Your task to perform on an android device: turn off improve location accuracy Image 0: 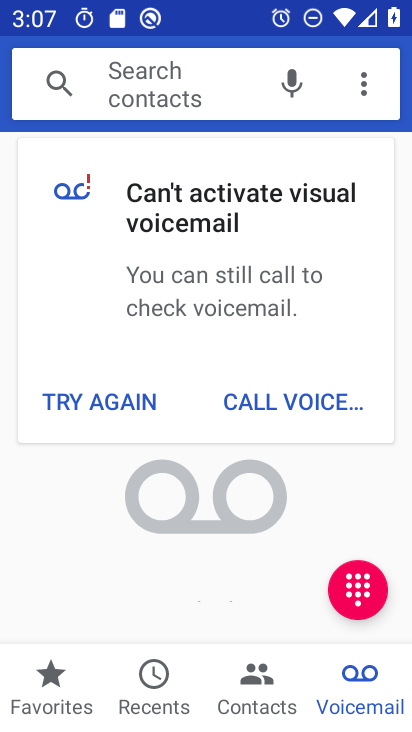
Step 0: press home button
Your task to perform on an android device: turn off improve location accuracy Image 1: 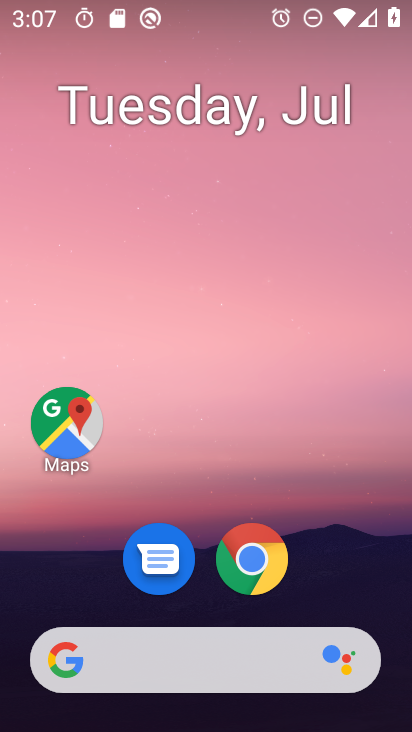
Step 1: drag from (373, 553) to (393, 145)
Your task to perform on an android device: turn off improve location accuracy Image 2: 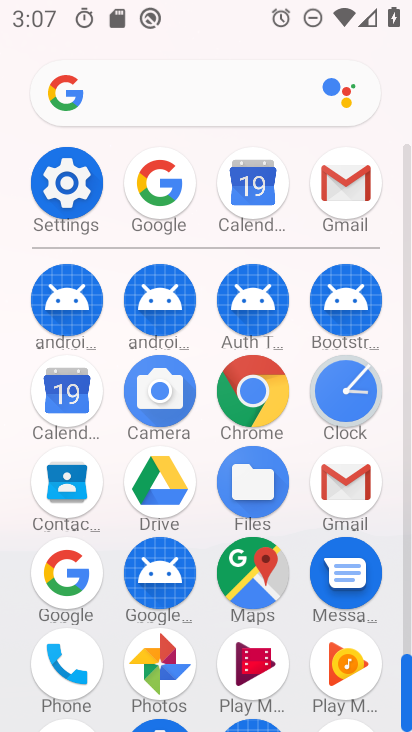
Step 2: click (80, 190)
Your task to perform on an android device: turn off improve location accuracy Image 3: 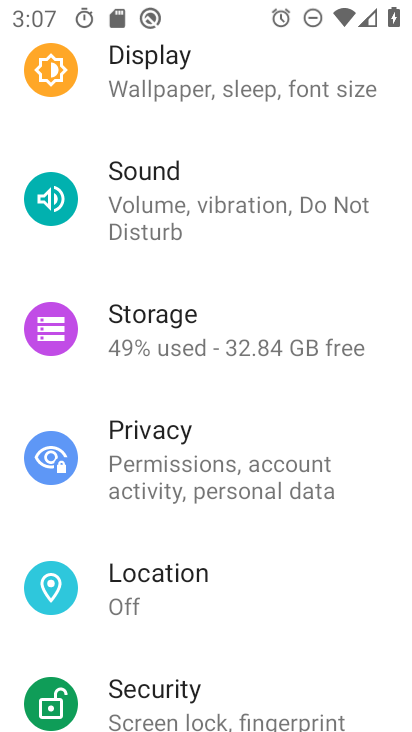
Step 3: drag from (356, 411) to (379, 520)
Your task to perform on an android device: turn off improve location accuracy Image 4: 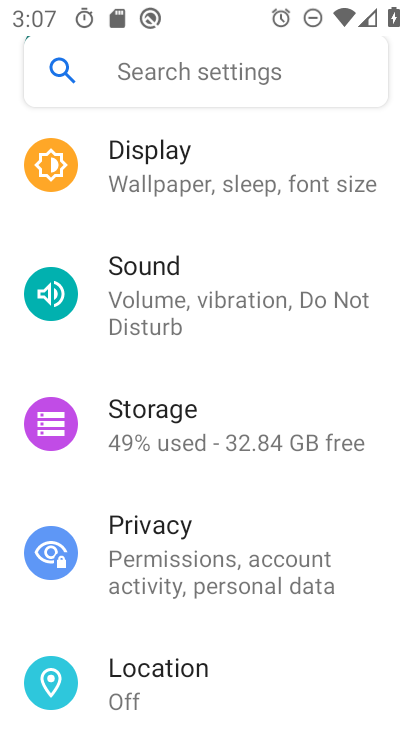
Step 4: drag from (373, 375) to (388, 470)
Your task to perform on an android device: turn off improve location accuracy Image 5: 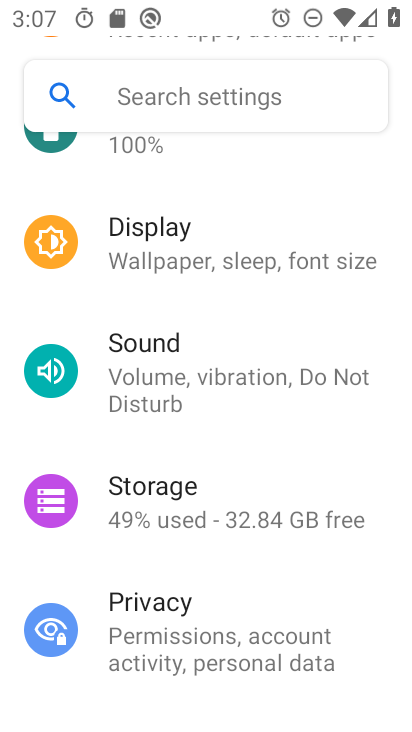
Step 5: drag from (370, 291) to (371, 392)
Your task to perform on an android device: turn off improve location accuracy Image 6: 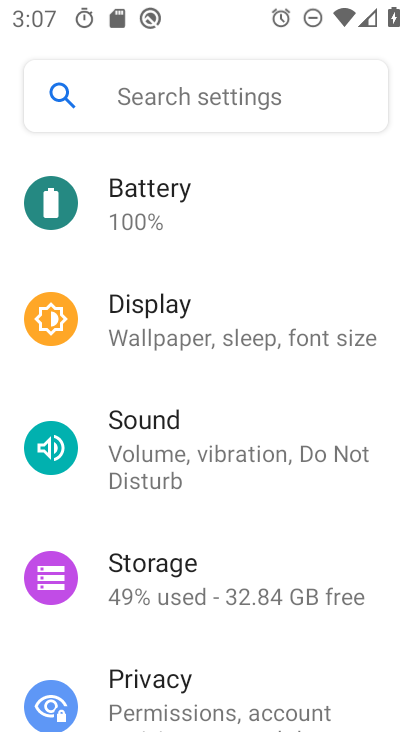
Step 6: drag from (368, 276) to (372, 364)
Your task to perform on an android device: turn off improve location accuracy Image 7: 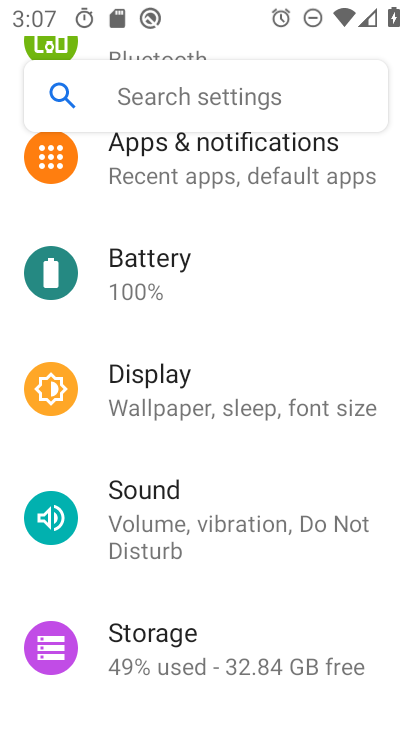
Step 7: drag from (365, 225) to (375, 344)
Your task to perform on an android device: turn off improve location accuracy Image 8: 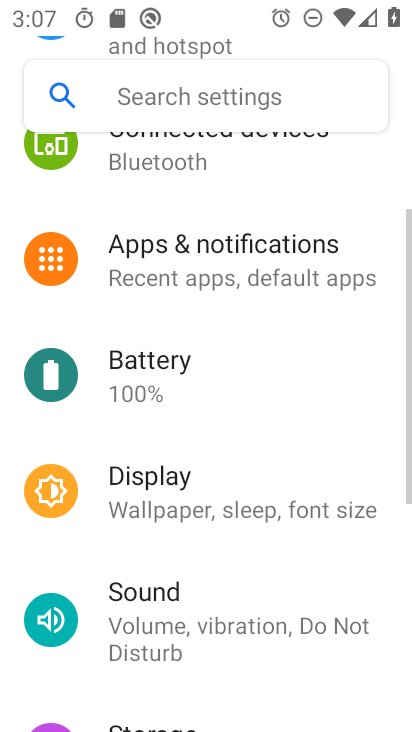
Step 8: drag from (362, 260) to (363, 426)
Your task to perform on an android device: turn off improve location accuracy Image 9: 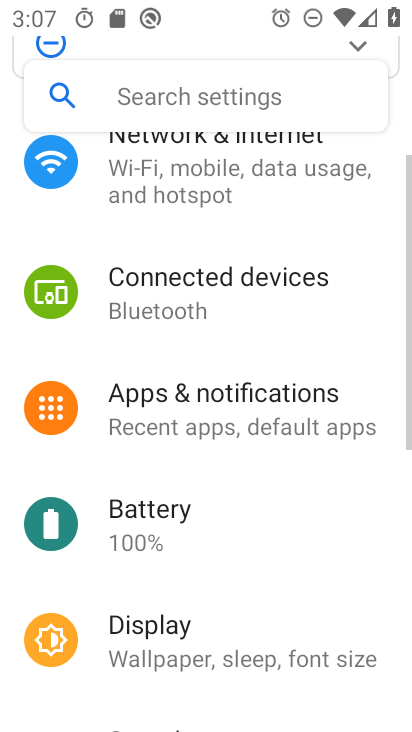
Step 9: drag from (351, 485) to (342, 358)
Your task to perform on an android device: turn off improve location accuracy Image 10: 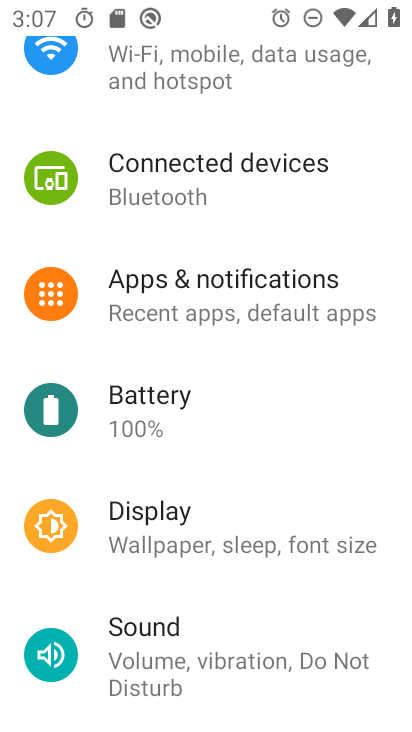
Step 10: drag from (338, 465) to (348, 313)
Your task to perform on an android device: turn off improve location accuracy Image 11: 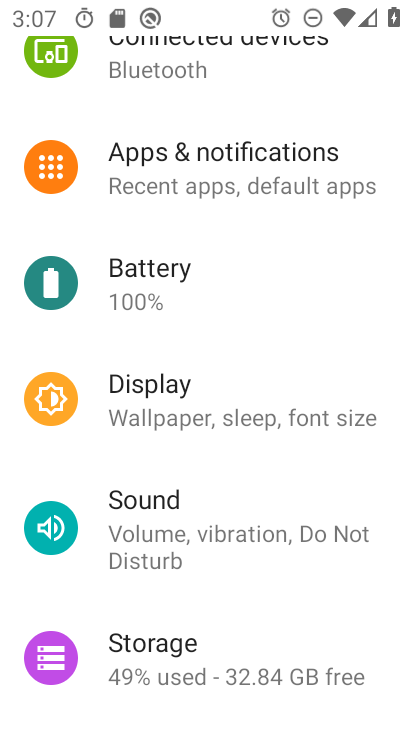
Step 11: drag from (341, 478) to (342, 359)
Your task to perform on an android device: turn off improve location accuracy Image 12: 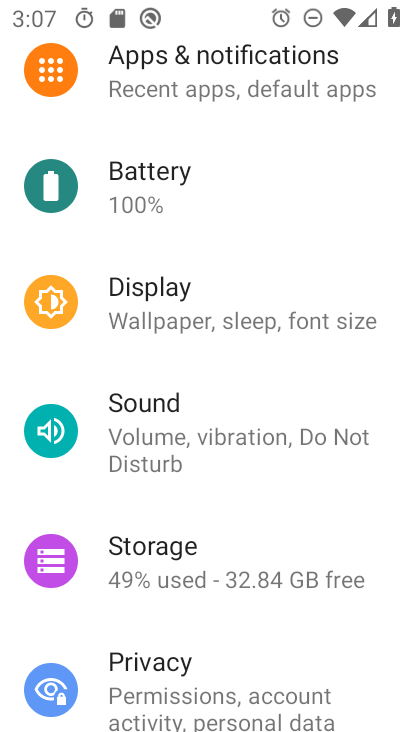
Step 12: drag from (343, 529) to (348, 409)
Your task to perform on an android device: turn off improve location accuracy Image 13: 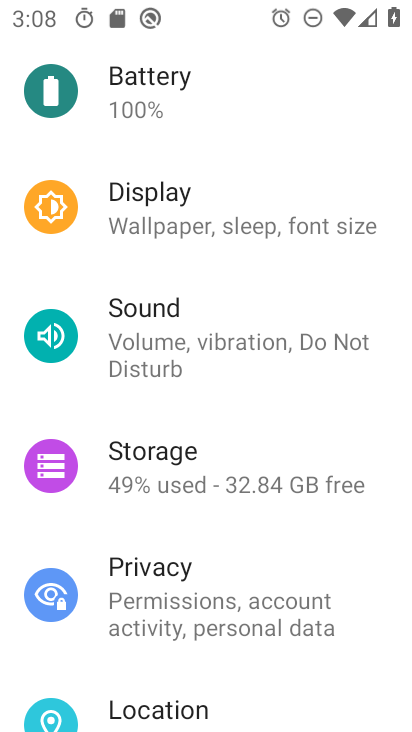
Step 13: drag from (351, 542) to (347, 397)
Your task to perform on an android device: turn off improve location accuracy Image 14: 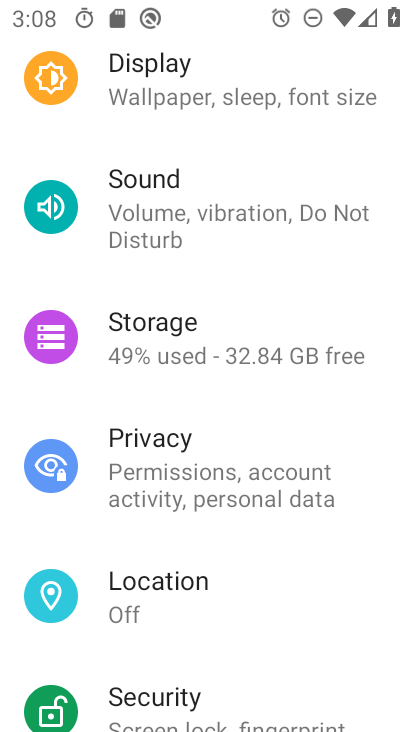
Step 14: drag from (321, 566) to (327, 437)
Your task to perform on an android device: turn off improve location accuracy Image 15: 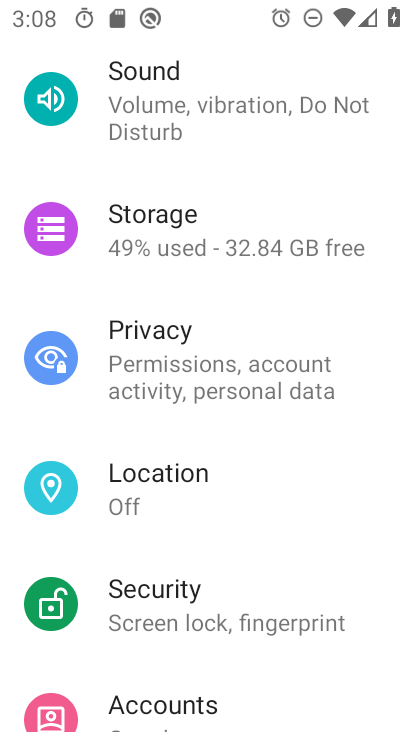
Step 15: click (257, 483)
Your task to perform on an android device: turn off improve location accuracy Image 16: 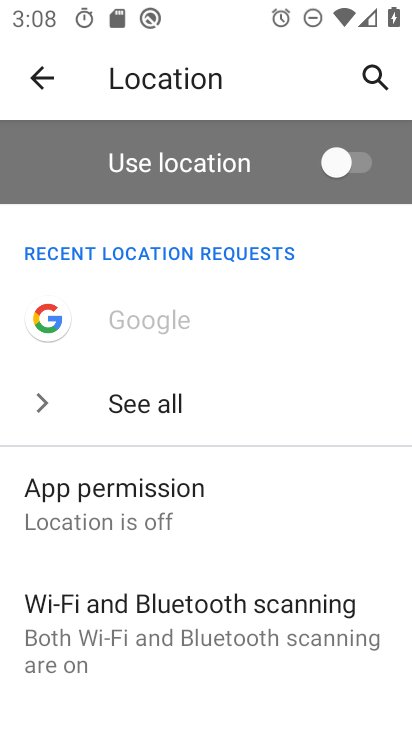
Step 16: drag from (290, 535) to (306, 433)
Your task to perform on an android device: turn off improve location accuracy Image 17: 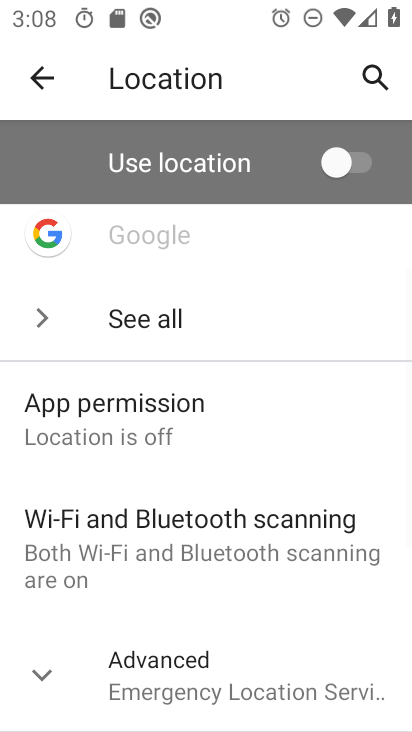
Step 17: drag from (302, 599) to (303, 513)
Your task to perform on an android device: turn off improve location accuracy Image 18: 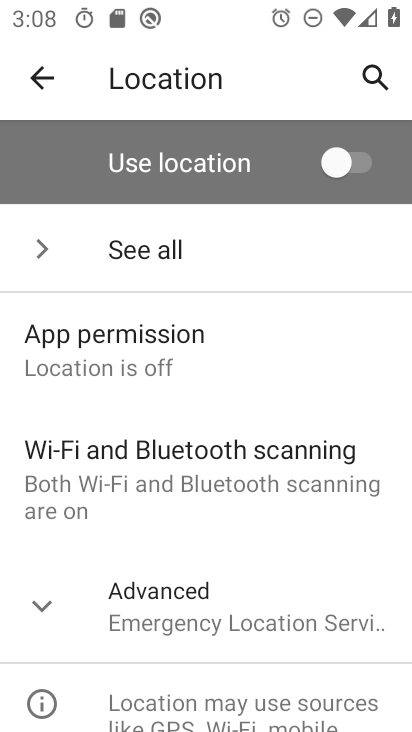
Step 18: click (299, 614)
Your task to perform on an android device: turn off improve location accuracy Image 19: 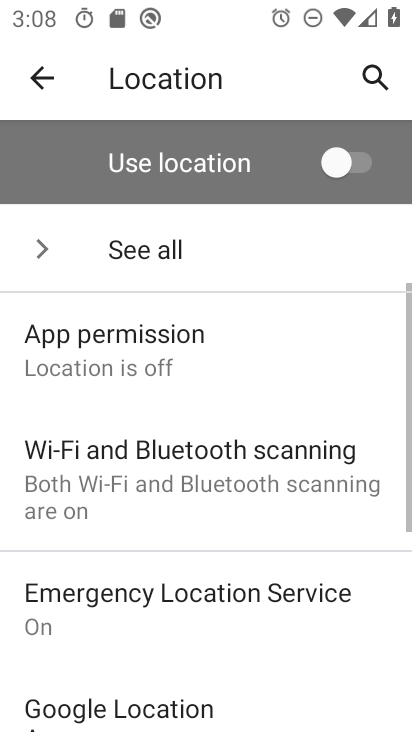
Step 19: drag from (299, 614) to (314, 510)
Your task to perform on an android device: turn off improve location accuracy Image 20: 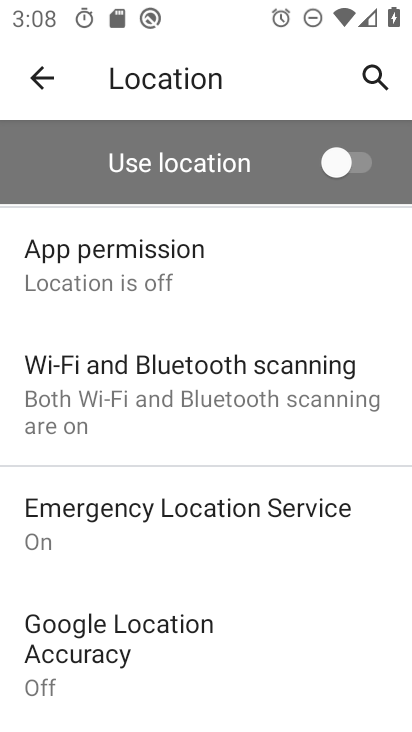
Step 20: drag from (310, 618) to (324, 457)
Your task to perform on an android device: turn off improve location accuracy Image 21: 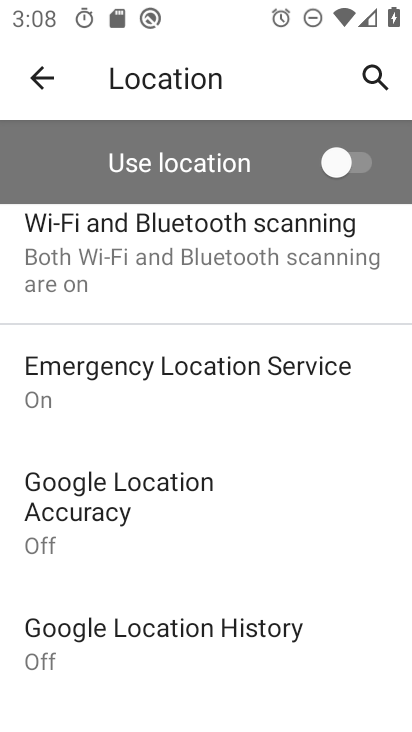
Step 21: drag from (324, 549) to (330, 469)
Your task to perform on an android device: turn off improve location accuracy Image 22: 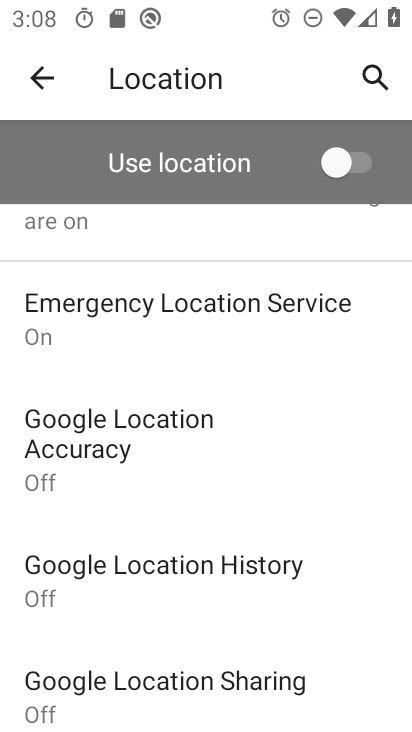
Step 22: drag from (339, 599) to (351, 470)
Your task to perform on an android device: turn off improve location accuracy Image 23: 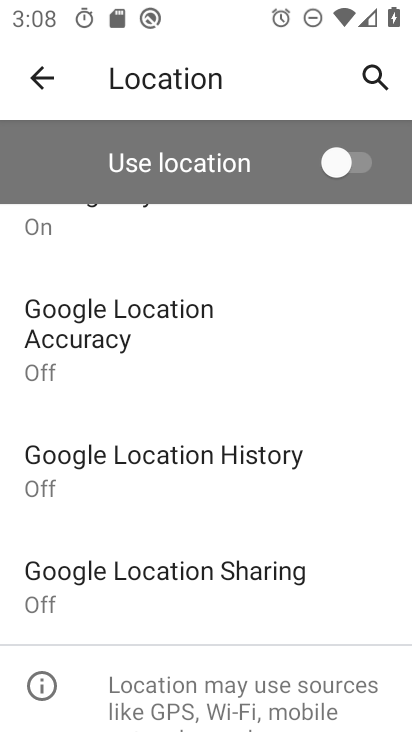
Step 23: click (187, 338)
Your task to perform on an android device: turn off improve location accuracy Image 24: 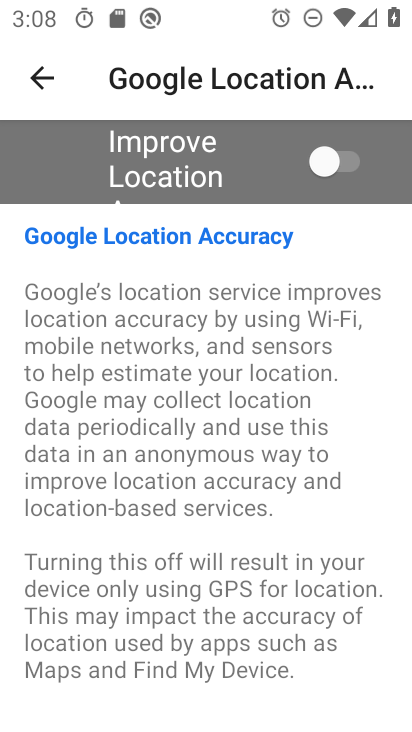
Step 24: task complete